Your task to perform on an android device: read, delete, or share a saved page in the chrome app Image 0: 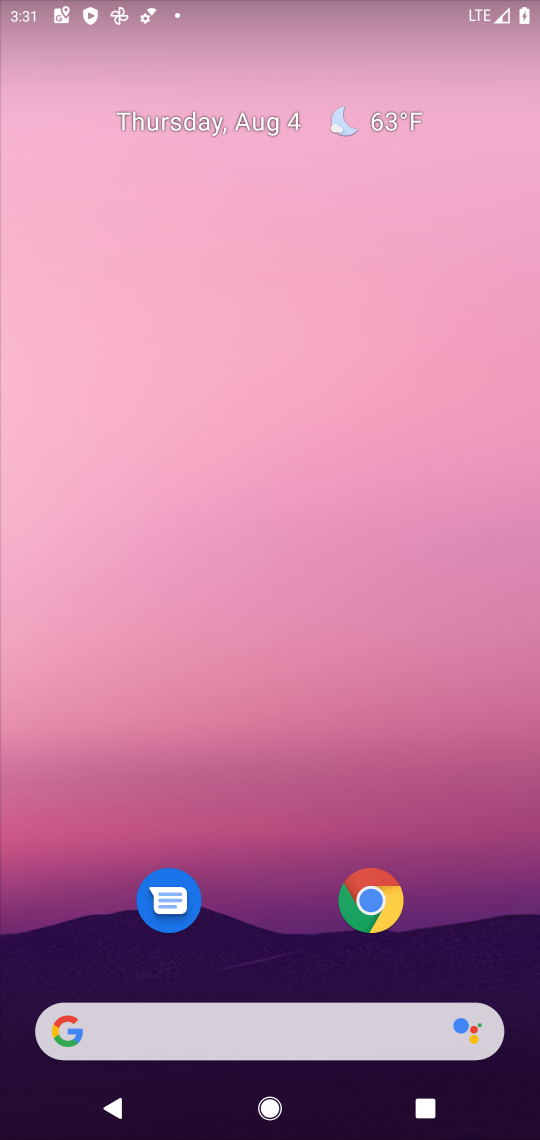
Step 0: click (373, 898)
Your task to perform on an android device: read, delete, or share a saved page in the chrome app Image 1: 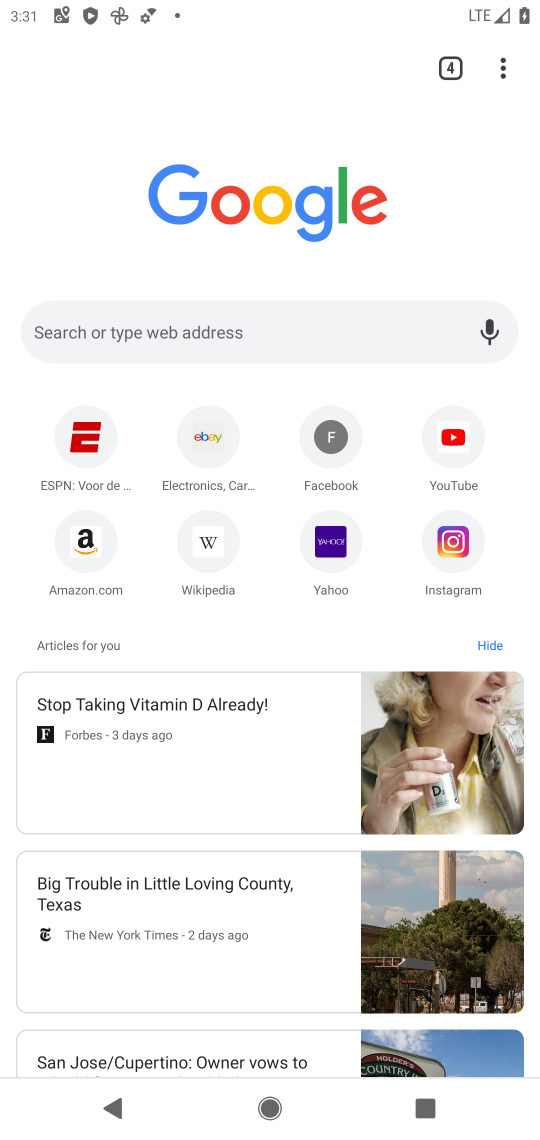
Step 1: click (508, 74)
Your task to perform on an android device: read, delete, or share a saved page in the chrome app Image 2: 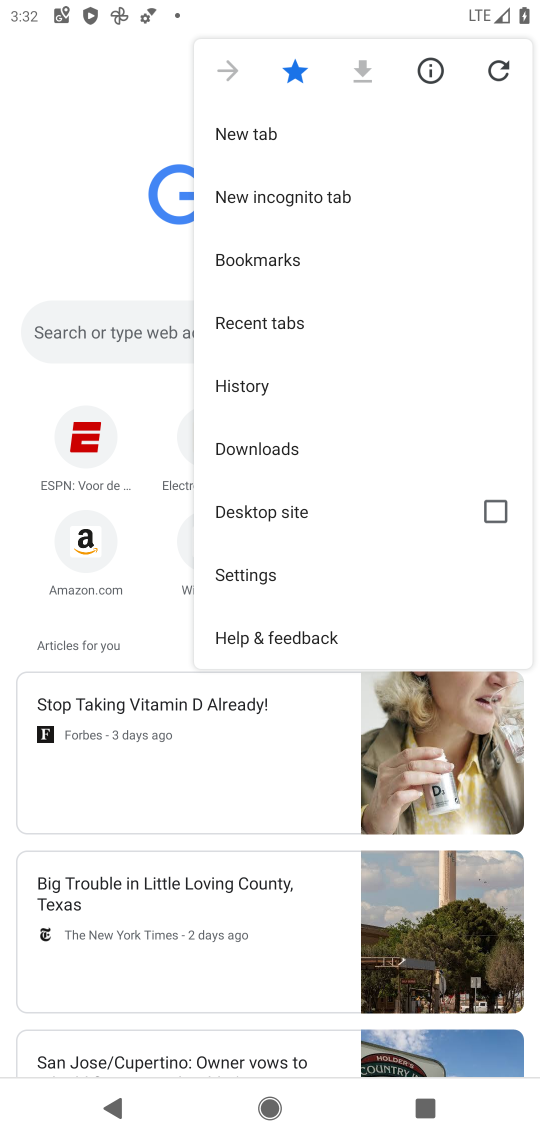
Step 2: click (314, 444)
Your task to perform on an android device: read, delete, or share a saved page in the chrome app Image 3: 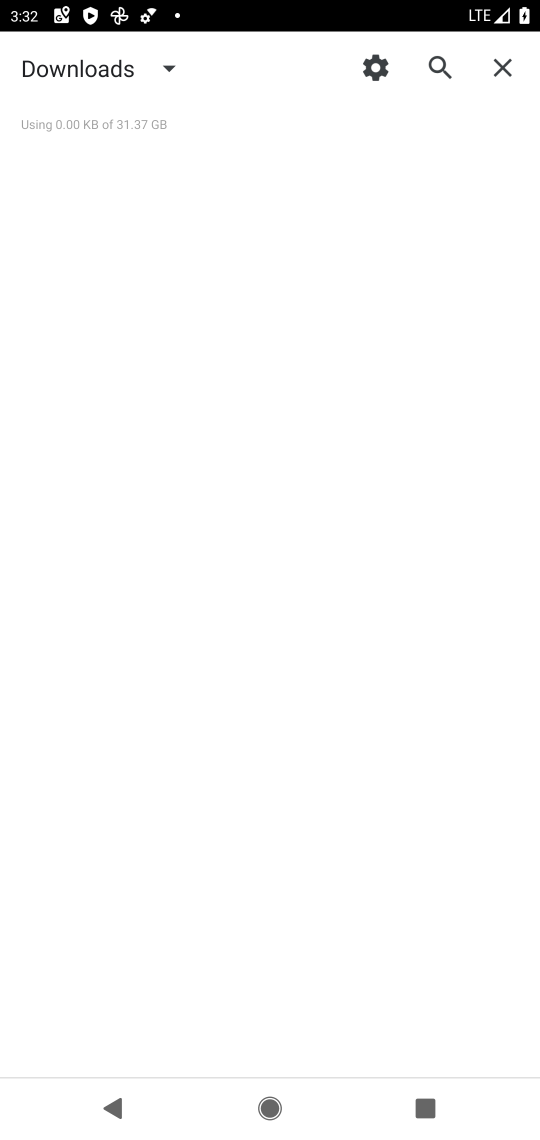
Step 3: click (167, 77)
Your task to perform on an android device: read, delete, or share a saved page in the chrome app Image 4: 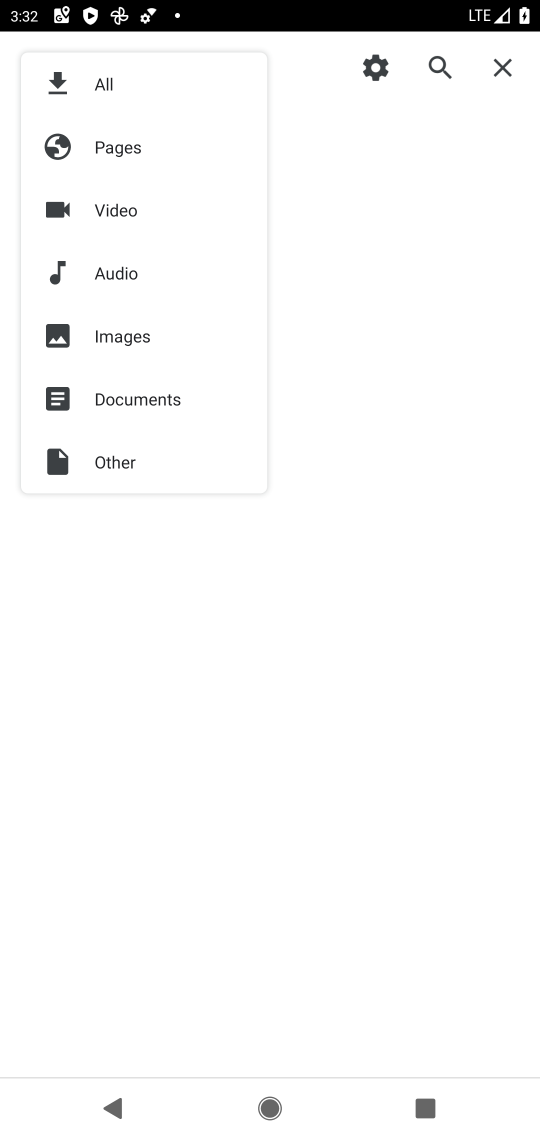
Step 4: click (133, 164)
Your task to perform on an android device: read, delete, or share a saved page in the chrome app Image 5: 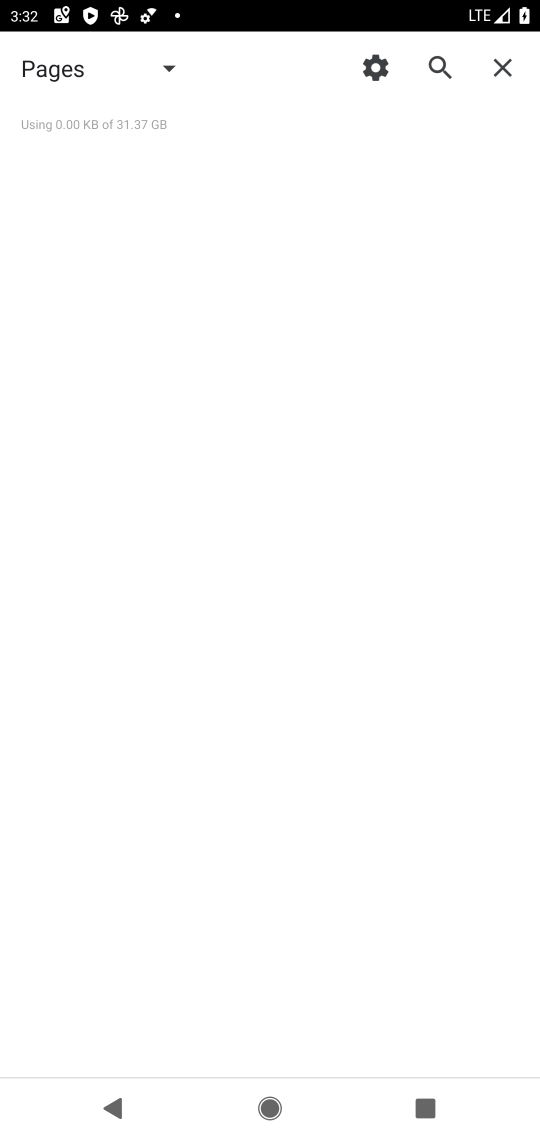
Step 5: task complete